Your task to perform on an android device: delete browsing data in the chrome app Image 0: 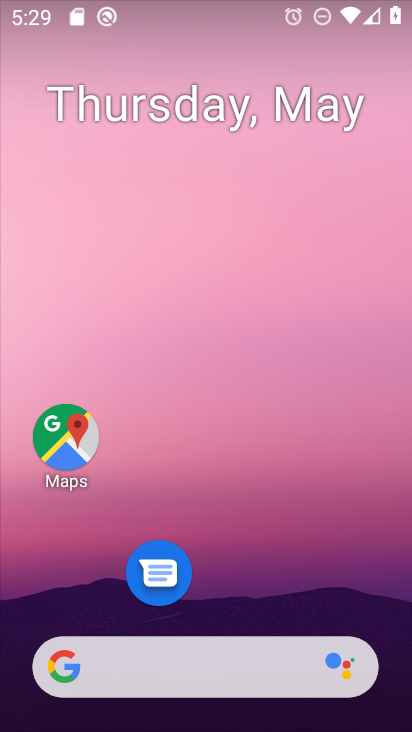
Step 0: drag from (229, 602) to (188, 128)
Your task to perform on an android device: delete browsing data in the chrome app Image 1: 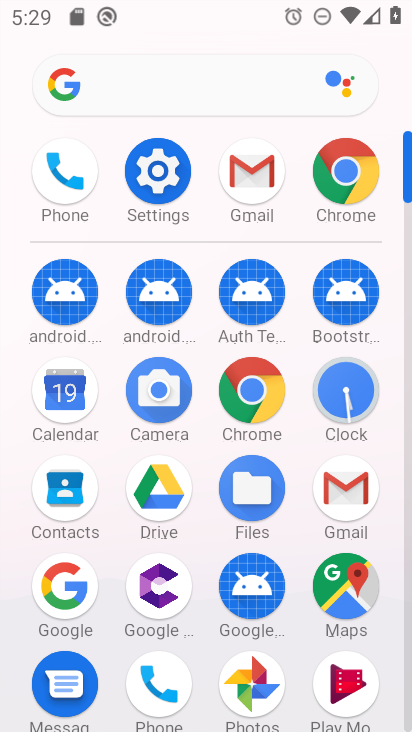
Step 1: click (351, 191)
Your task to perform on an android device: delete browsing data in the chrome app Image 2: 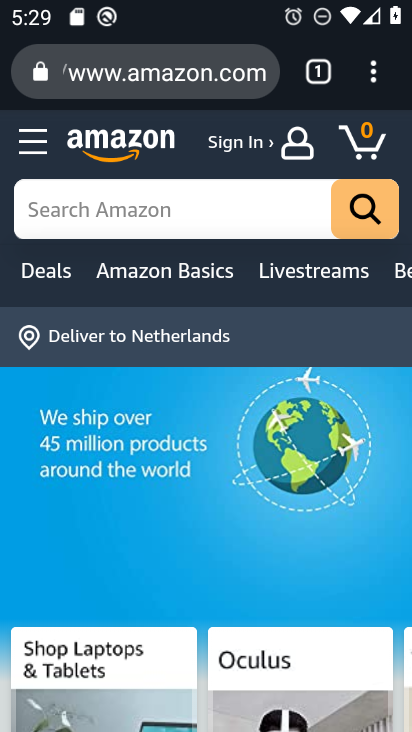
Step 2: click (374, 74)
Your task to perform on an android device: delete browsing data in the chrome app Image 3: 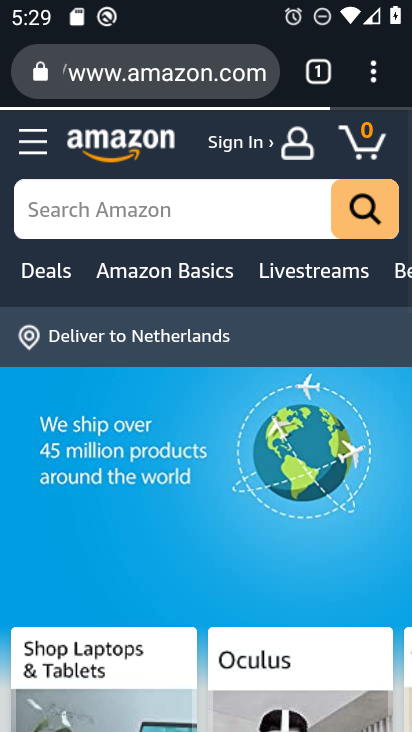
Step 3: click (374, 74)
Your task to perform on an android device: delete browsing data in the chrome app Image 4: 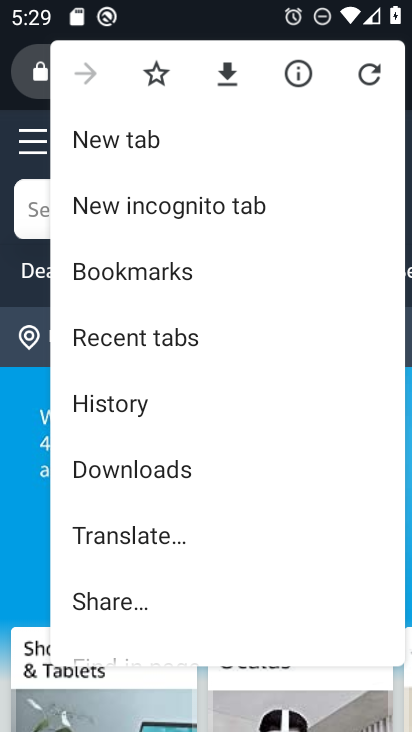
Step 4: drag from (134, 574) to (112, 337)
Your task to perform on an android device: delete browsing data in the chrome app Image 5: 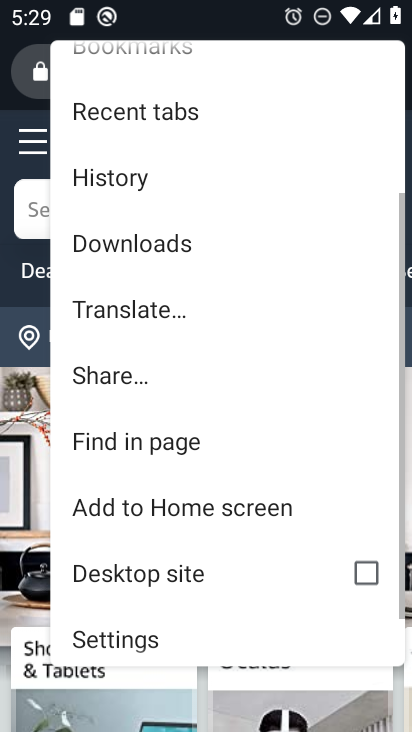
Step 5: drag from (185, 427) to (190, 370)
Your task to perform on an android device: delete browsing data in the chrome app Image 6: 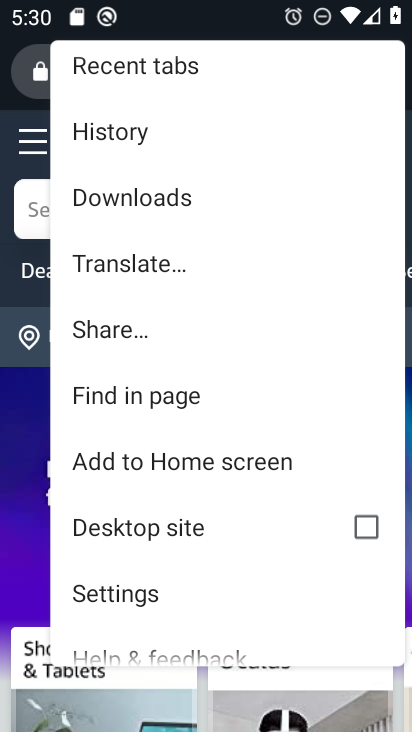
Step 6: click (123, 129)
Your task to perform on an android device: delete browsing data in the chrome app Image 7: 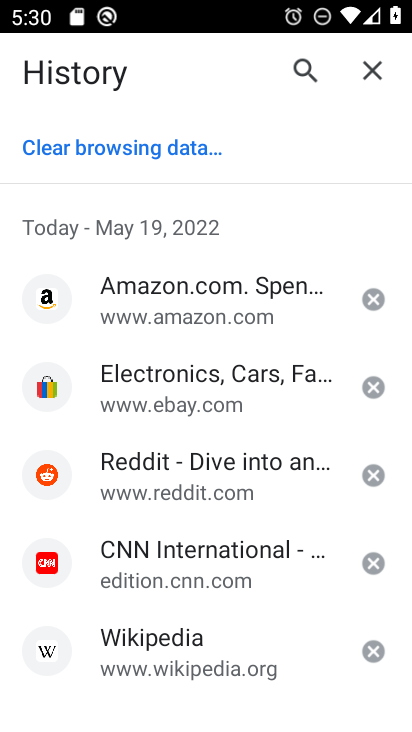
Step 7: click (109, 148)
Your task to perform on an android device: delete browsing data in the chrome app Image 8: 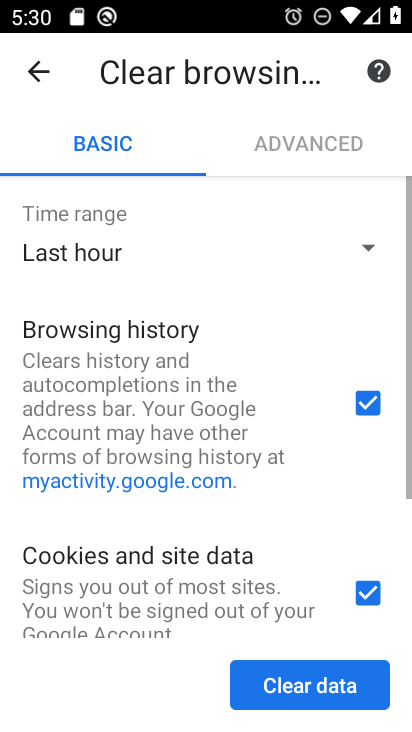
Step 8: click (320, 693)
Your task to perform on an android device: delete browsing data in the chrome app Image 9: 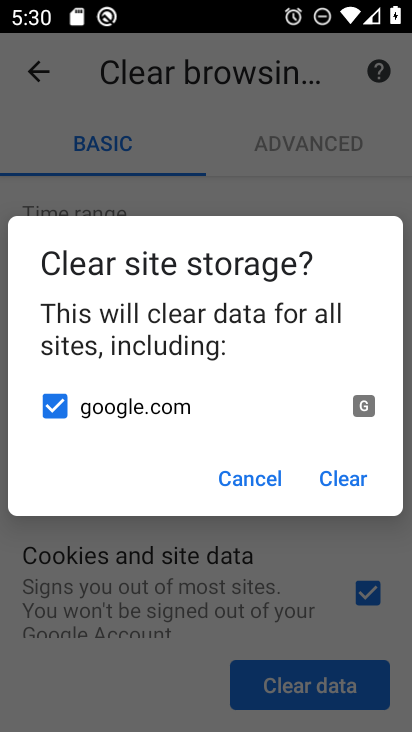
Step 9: click (329, 485)
Your task to perform on an android device: delete browsing data in the chrome app Image 10: 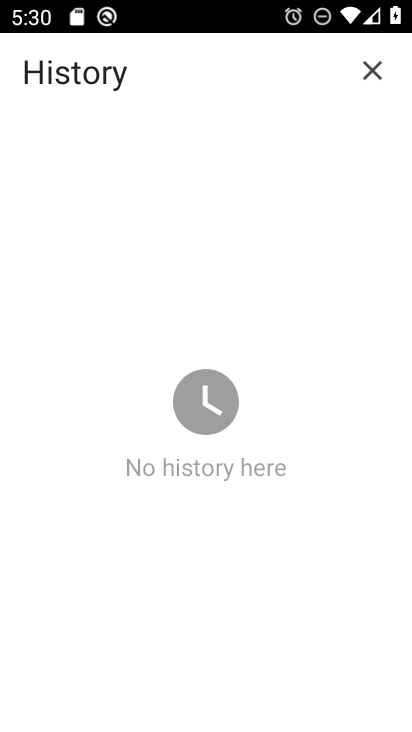
Step 10: task complete